Your task to perform on an android device: create a new album in the google photos Image 0: 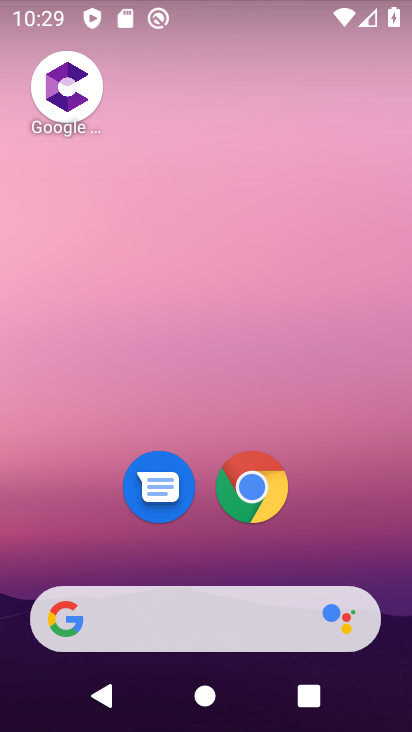
Step 0: drag from (369, 521) to (327, 196)
Your task to perform on an android device: create a new album in the google photos Image 1: 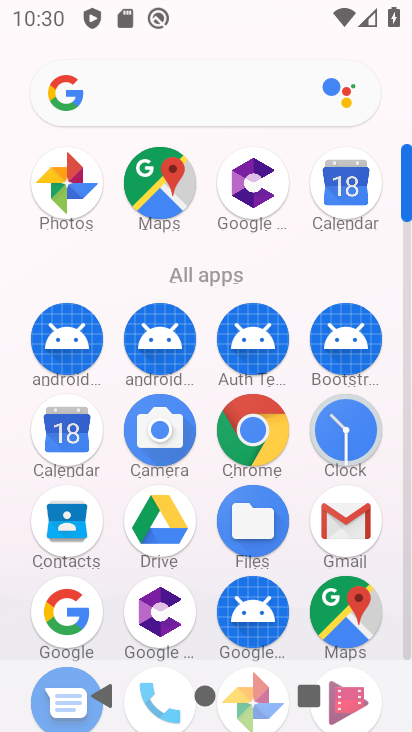
Step 1: drag from (210, 288) to (204, 175)
Your task to perform on an android device: create a new album in the google photos Image 2: 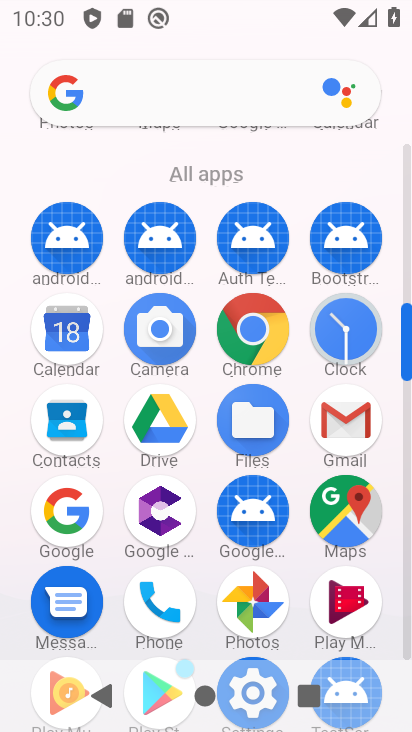
Step 2: click (265, 602)
Your task to perform on an android device: create a new album in the google photos Image 3: 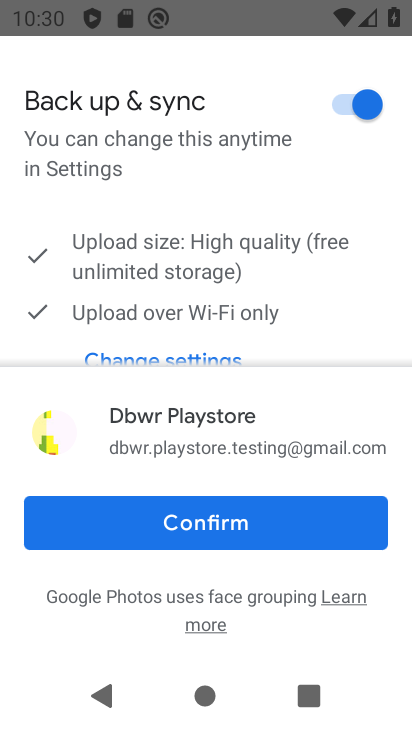
Step 3: click (148, 515)
Your task to perform on an android device: create a new album in the google photos Image 4: 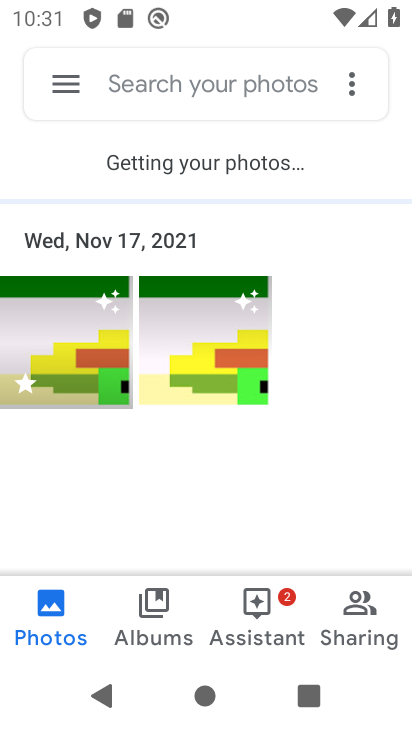
Step 4: click (86, 348)
Your task to perform on an android device: create a new album in the google photos Image 5: 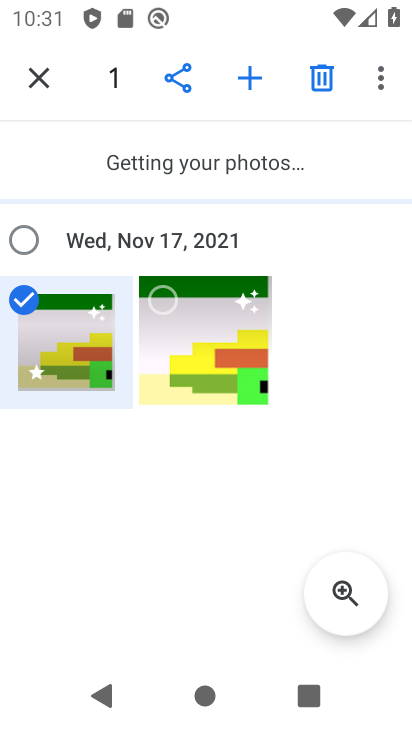
Step 5: click (244, 75)
Your task to perform on an android device: create a new album in the google photos Image 6: 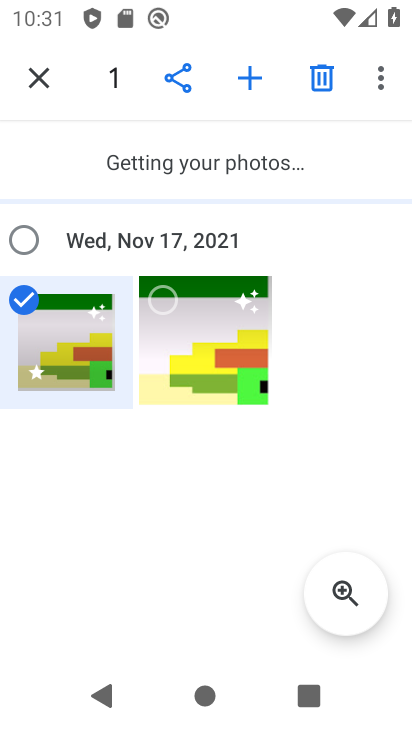
Step 6: click (254, 80)
Your task to perform on an android device: create a new album in the google photos Image 7: 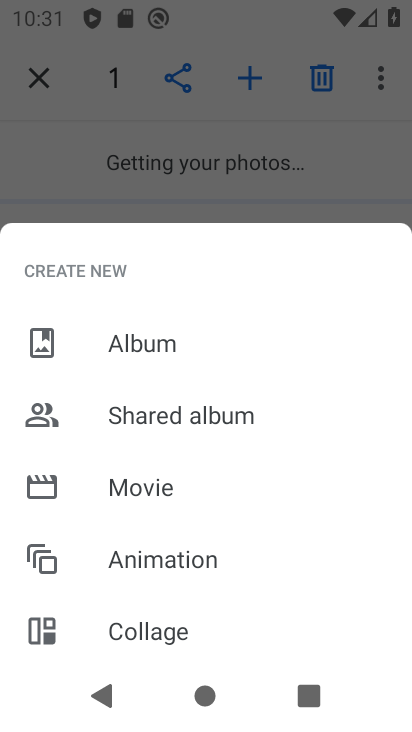
Step 7: click (186, 350)
Your task to perform on an android device: create a new album in the google photos Image 8: 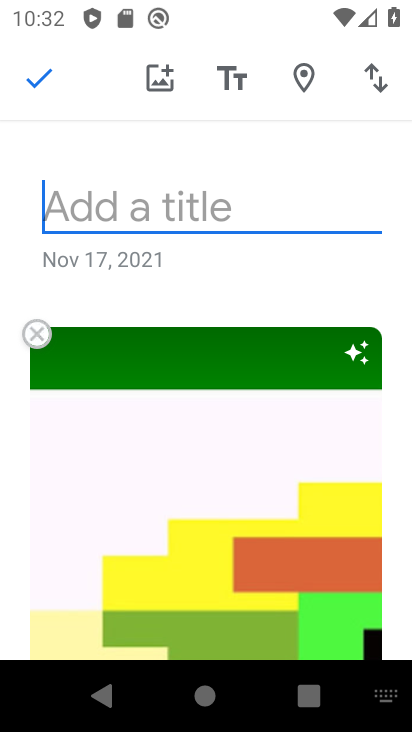
Step 8: type "ok"
Your task to perform on an android device: create a new album in the google photos Image 9: 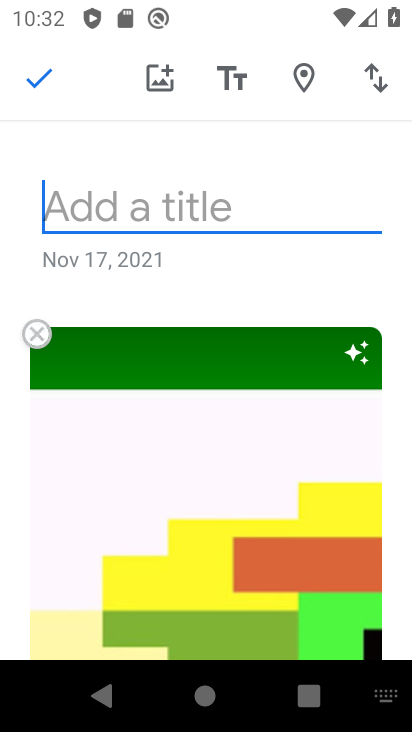
Step 9: click (33, 73)
Your task to perform on an android device: create a new album in the google photos Image 10: 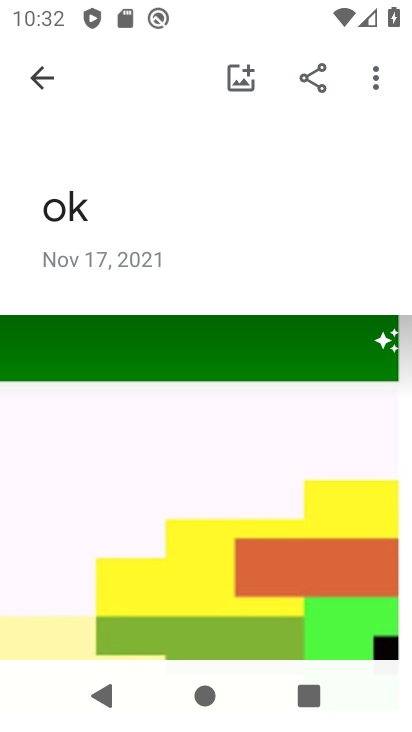
Step 10: task complete